Your task to perform on an android device: open a bookmark in the chrome app Image 0: 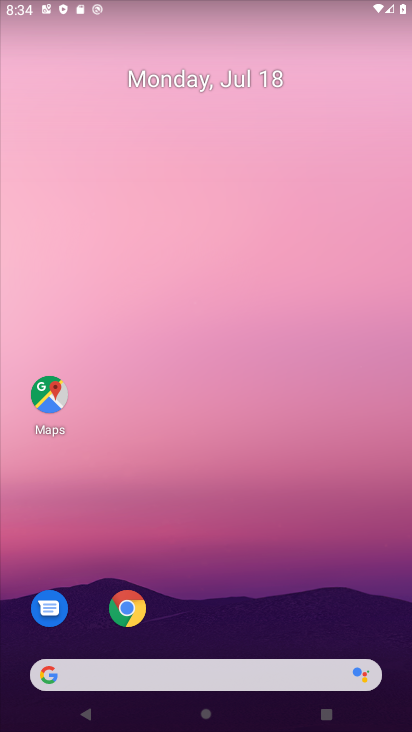
Step 0: click (130, 606)
Your task to perform on an android device: open a bookmark in the chrome app Image 1: 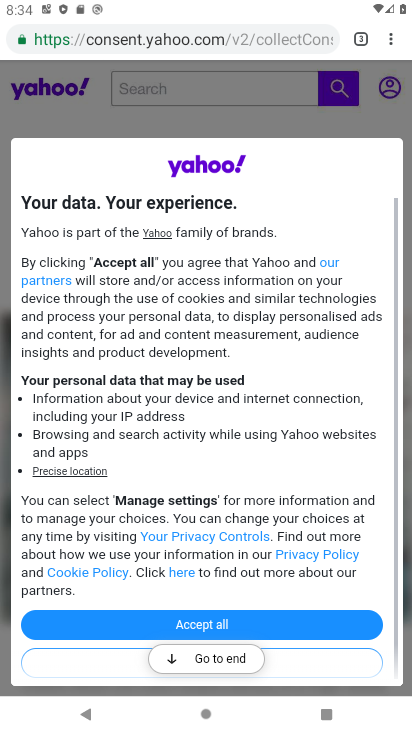
Step 1: click (390, 42)
Your task to perform on an android device: open a bookmark in the chrome app Image 2: 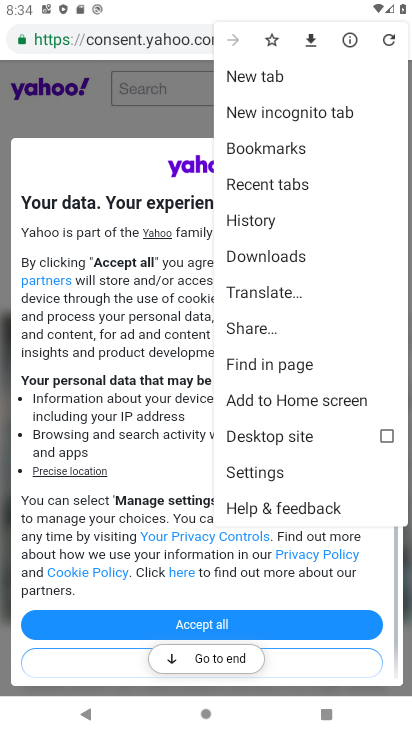
Step 2: click (245, 145)
Your task to perform on an android device: open a bookmark in the chrome app Image 3: 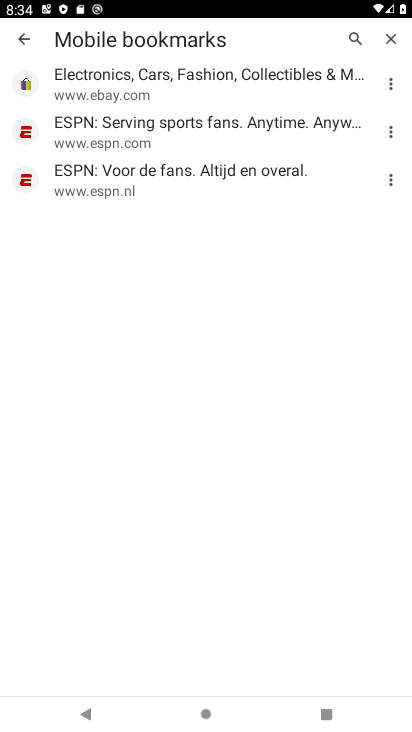
Step 3: click (194, 81)
Your task to perform on an android device: open a bookmark in the chrome app Image 4: 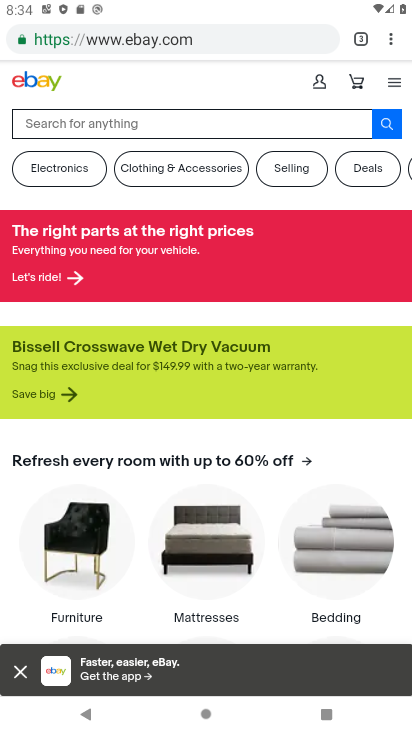
Step 4: task complete